Your task to perform on an android device: find photos in the google photos app Image 0: 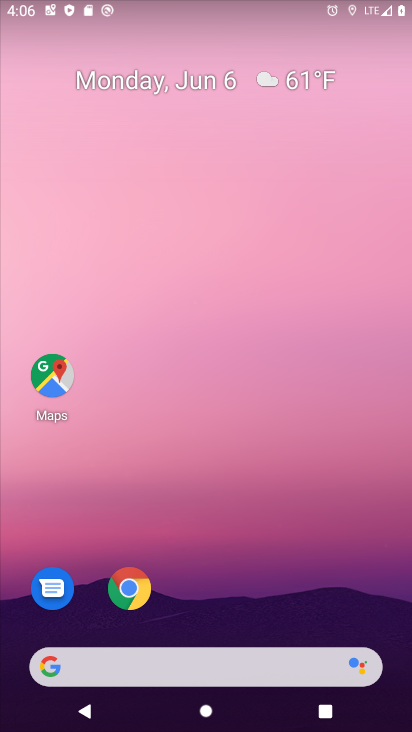
Step 0: drag from (246, 599) to (142, 26)
Your task to perform on an android device: find photos in the google photos app Image 1: 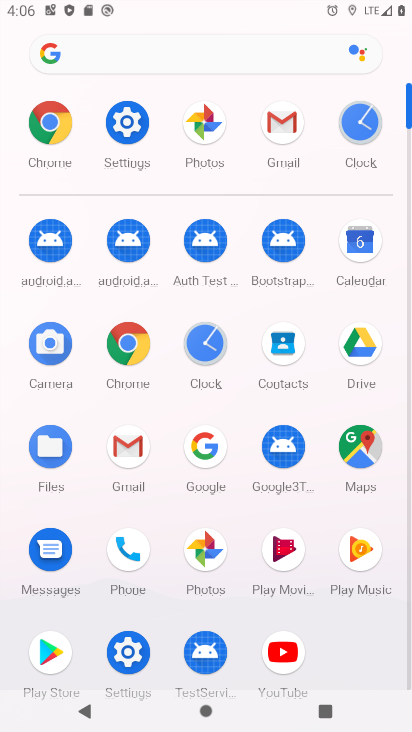
Step 1: click (203, 550)
Your task to perform on an android device: find photos in the google photos app Image 2: 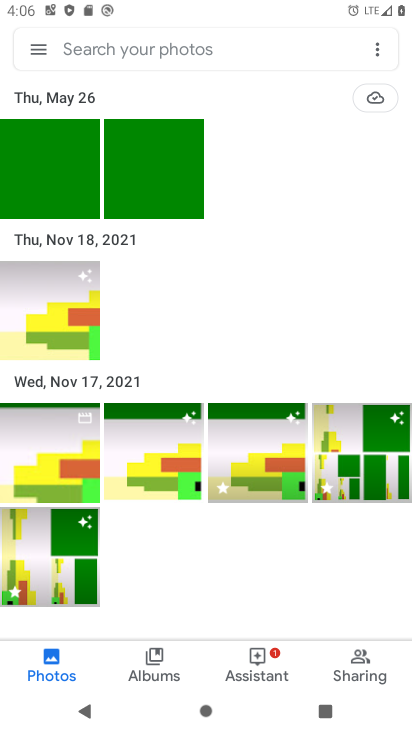
Step 2: task complete